Your task to perform on an android device: Set the phone to "Do not disturb". Image 0: 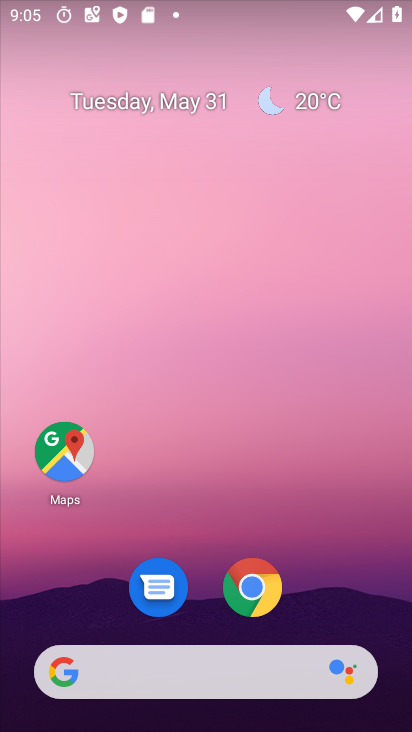
Step 0: drag from (253, 6) to (140, 565)
Your task to perform on an android device: Set the phone to "Do not disturb". Image 1: 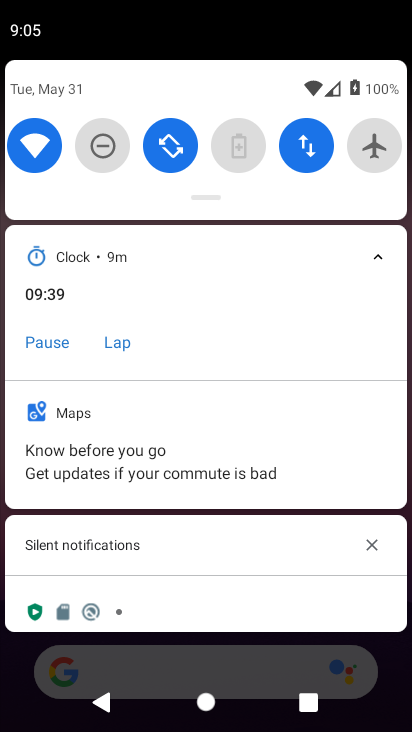
Step 1: click (109, 152)
Your task to perform on an android device: Set the phone to "Do not disturb". Image 2: 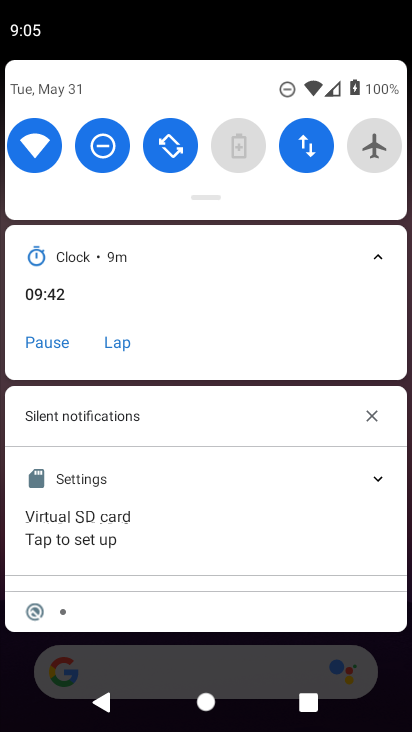
Step 2: task complete